Your task to perform on an android device: delete browsing data in the chrome app Image 0: 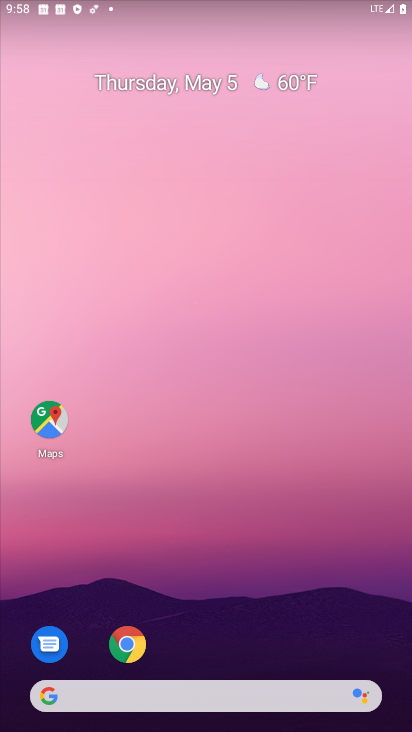
Step 0: drag from (204, 652) to (173, 145)
Your task to perform on an android device: delete browsing data in the chrome app Image 1: 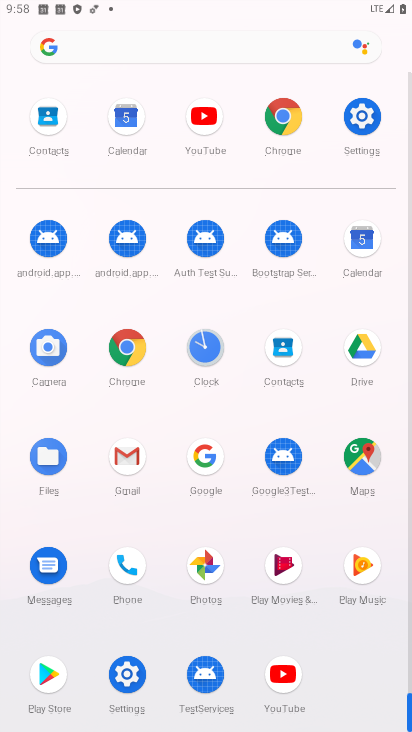
Step 1: click (281, 128)
Your task to perform on an android device: delete browsing data in the chrome app Image 2: 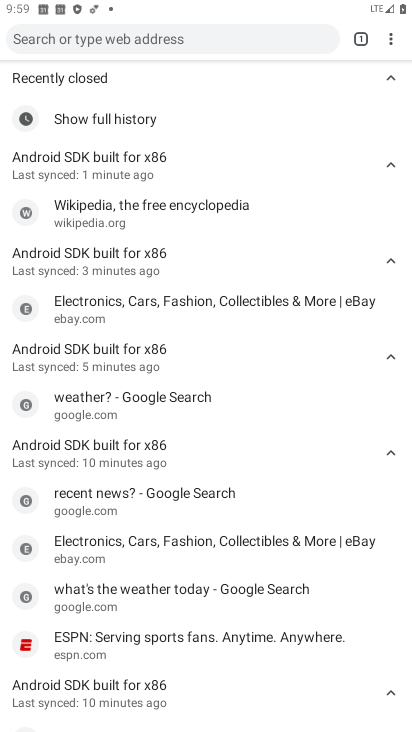
Step 2: drag from (180, 669) to (200, 351)
Your task to perform on an android device: delete browsing data in the chrome app Image 3: 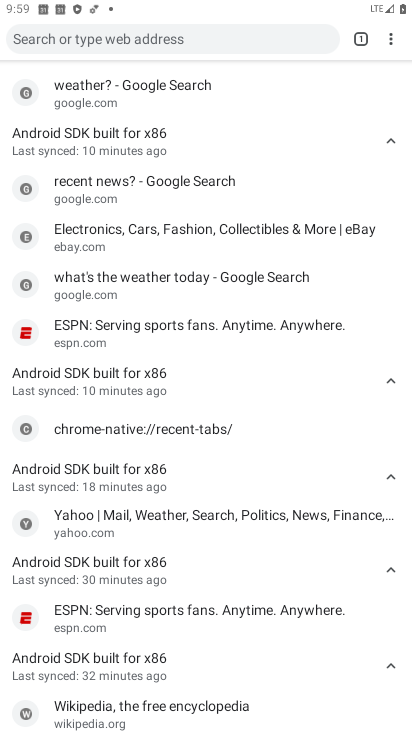
Step 3: drag from (196, 249) to (298, 725)
Your task to perform on an android device: delete browsing data in the chrome app Image 4: 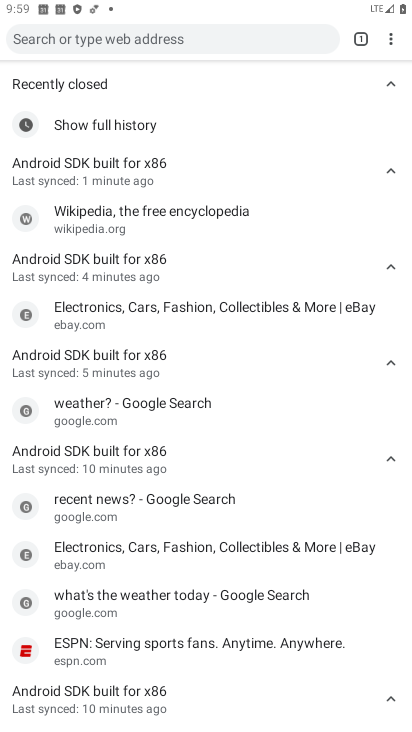
Step 4: click (390, 39)
Your task to perform on an android device: delete browsing data in the chrome app Image 5: 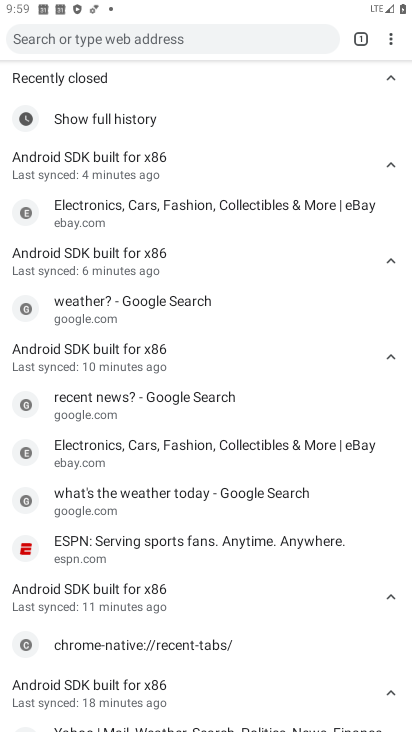
Step 5: click (387, 36)
Your task to perform on an android device: delete browsing data in the chrome app Image 6: 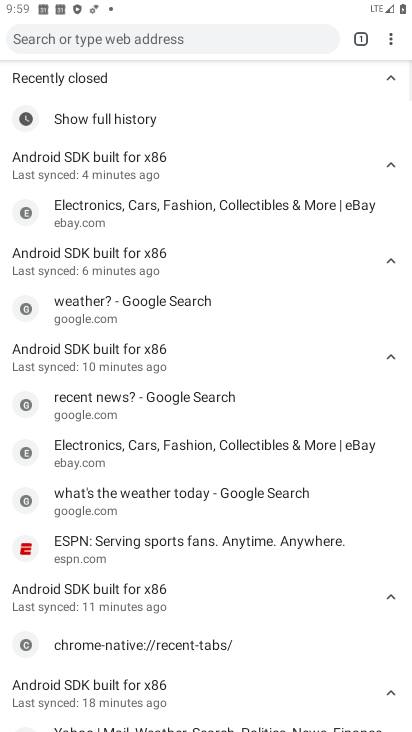
Step 6: drag from (387, 36) to (309, 217)
Your task to perform on an android device: delete browsing data in the chrome app Image 7: 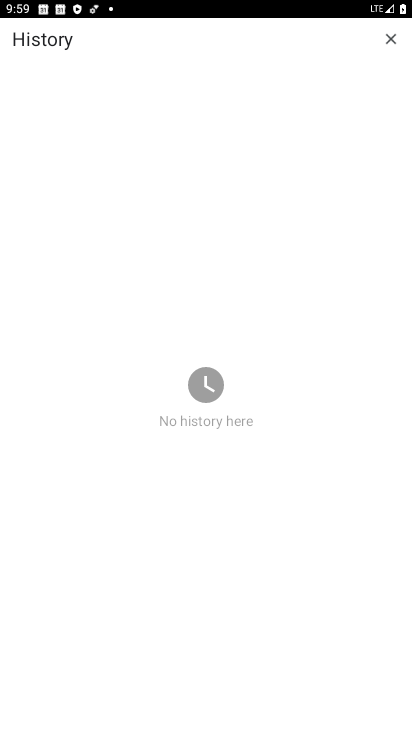
Step 7: click (201, 453)
Your task to perform on an android device: delete browsing data in the chrome app Image 8: 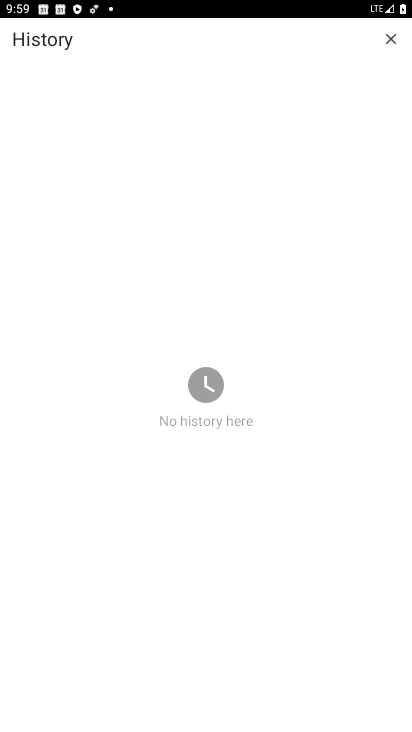
Step 8: task complete